Your task to perform on an android device: Find coffee shops on Maps Image 0: 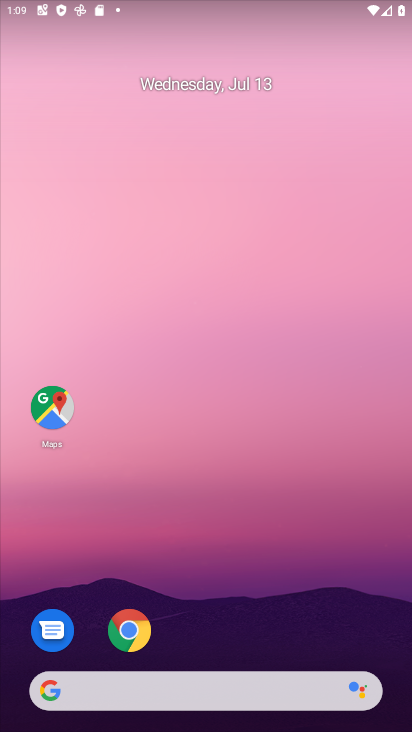
Step 0: drag from (374, 638) to (162, 50)
Your task to perform on an android device: Find coffee shops on Maps Image 1: 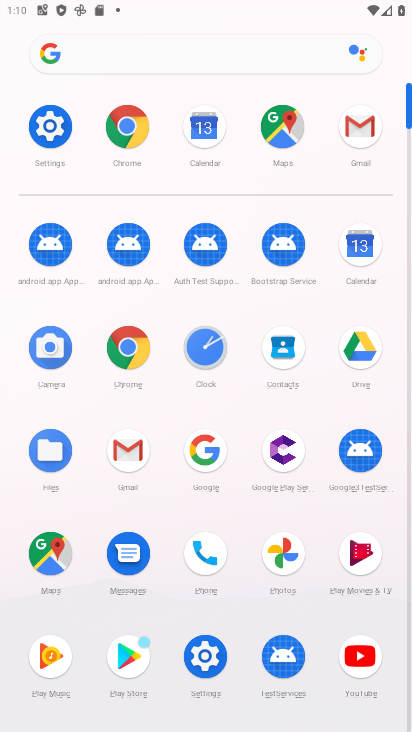
Step 1: click (53, 525)
Your task to perform on an android device: Find coffee shops on Maps Image 2: 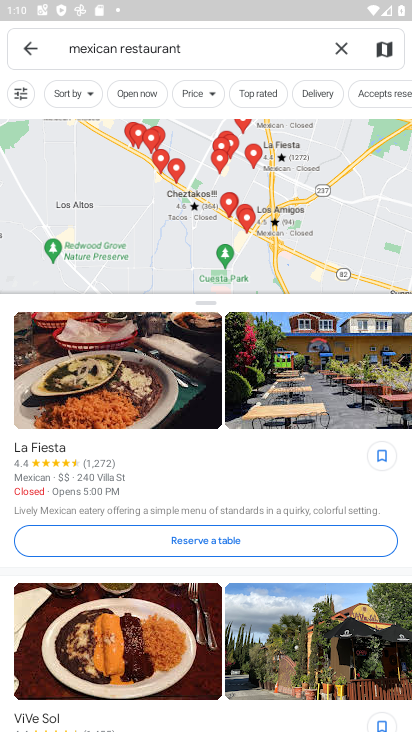
Step 2: click (340, 50)
Your task to perform on an android device: Find coffee shops on Maps Image 3: 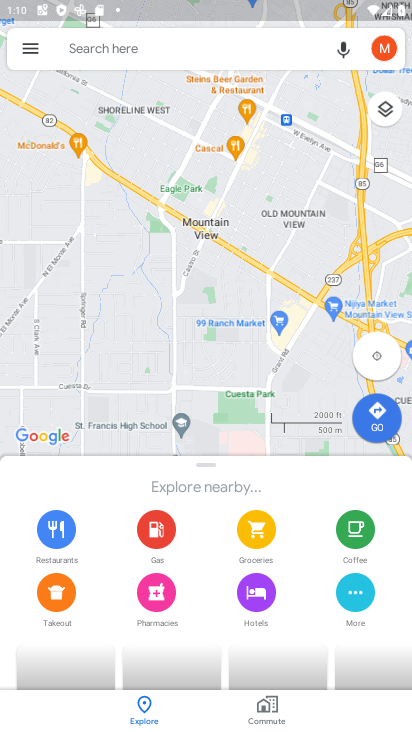
Step 3: click (163, 48)
Your task to perform on an android device: Find coffee shops on Maps Image 4: 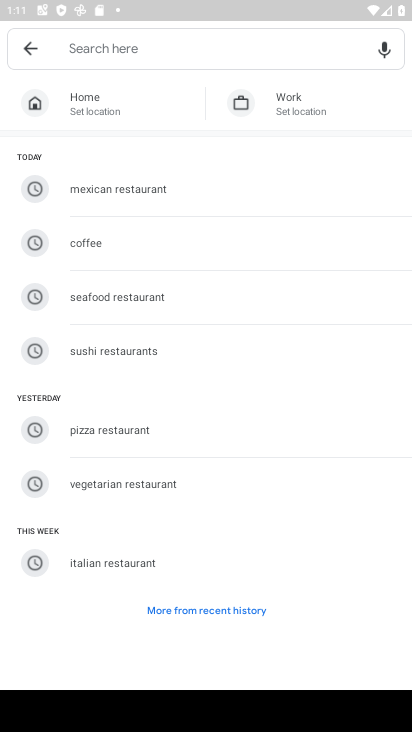
Step 4: click (114, 232)
Your task to perform on an android device: Find coffee shops on Maps Image 5: 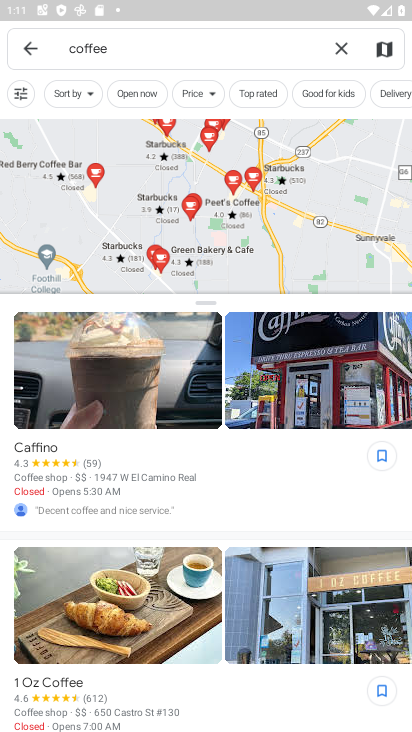
Step 5: task complete